Your task to perform on an android device: Search for vegetarian restaurants on Maps Image 0: 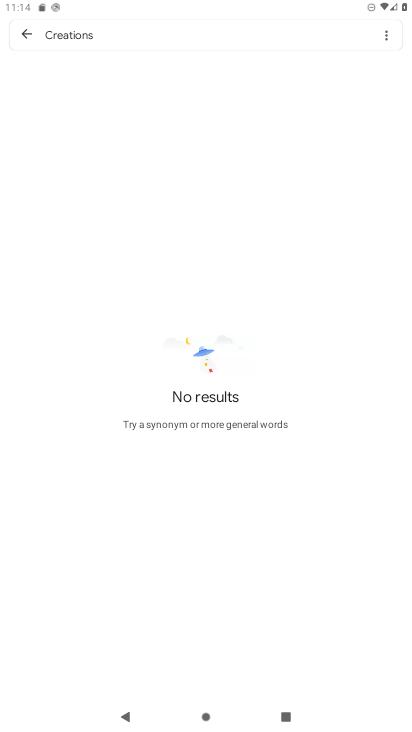
Step 0: press home button
Your task to perform on an android device: Search for vegetarian restaurants on Maps Image 1: 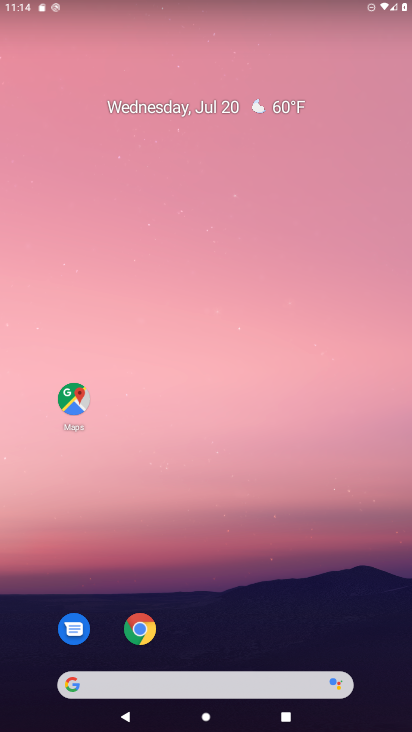
Step 1: click (65, 407)
Your task to perform on an android device: Search for vegetarian restaurants on Maps Image 2: 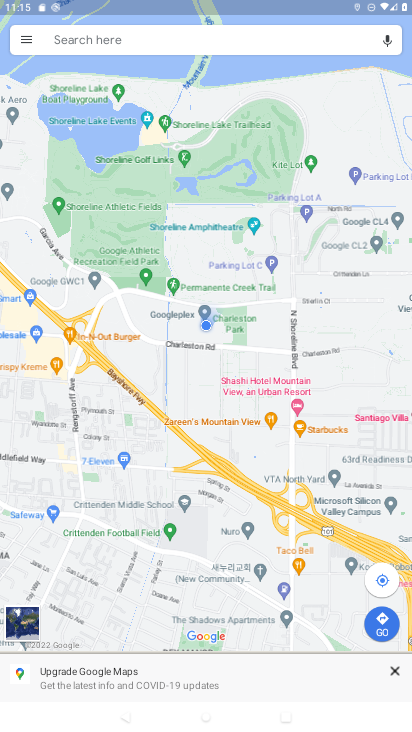
Step 2: click (233, 31)
Your task to perform on an android device: Search for vegetarian restaurants on Maps Image 3: 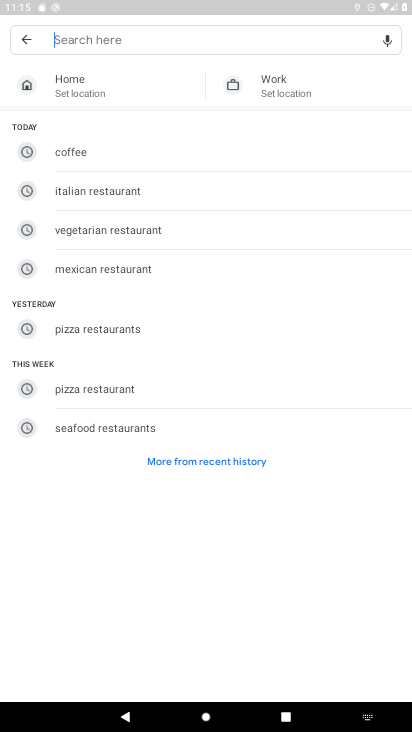
Step 3: click (188, 227)
Your task to perform on an android device: Search for vegetarian restaurants on Maps Image 4: 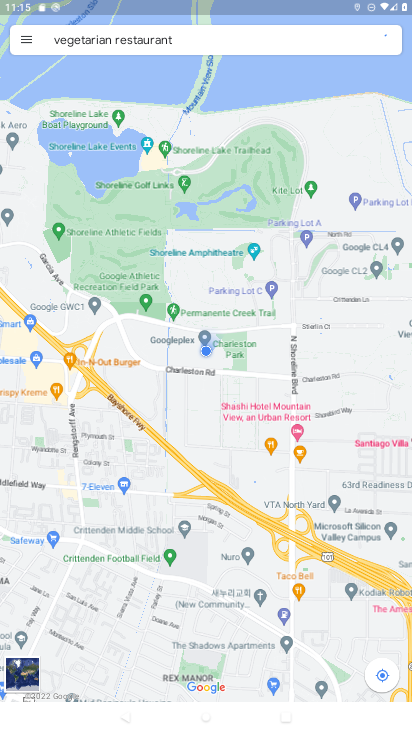
Step 4: task complete